Your task to perform on an android device: What's the weather today? Image 0: 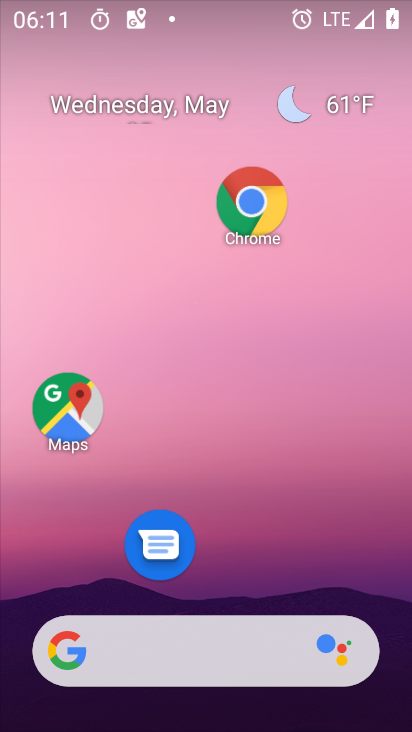
Step 0: press home button
Your task to perform on an android device: What's the weather today? Image 1: 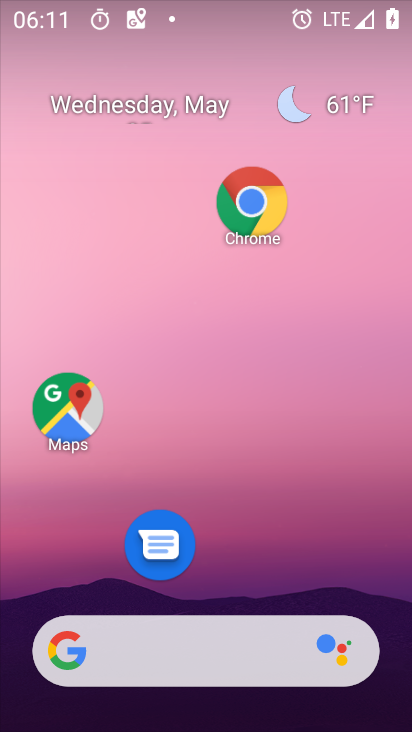
Step 1: click (239, 195)
Your task to perform on an android device: What's the weather today? Image 2: 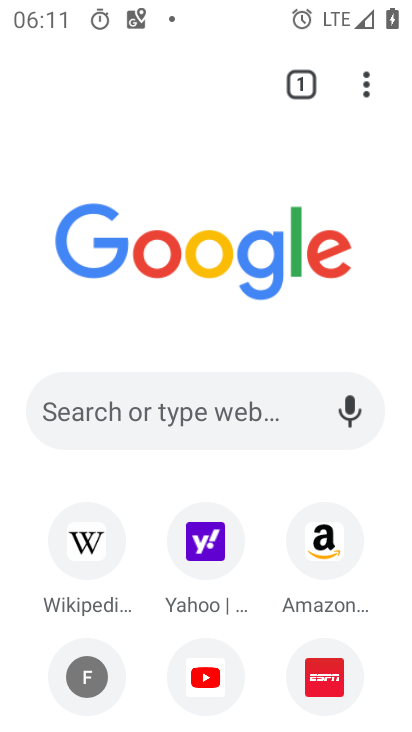
Step 2: click (204, 408)
Your task to perform on an android device: What's the weather today? Image 3: 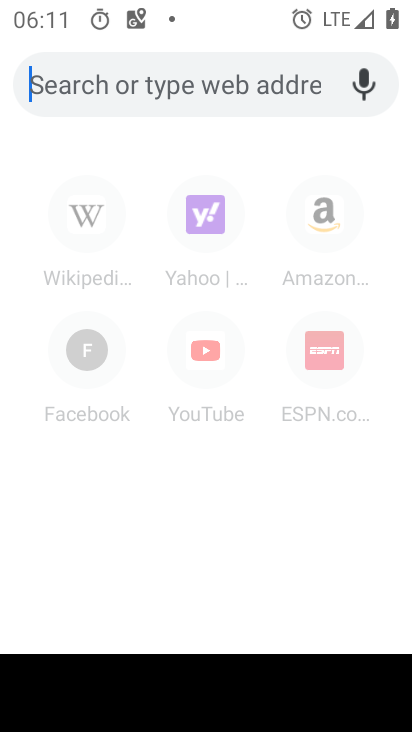
Step 3: click (223, 80)
Your task to perform on an android device: What's the weather today? Image 4: 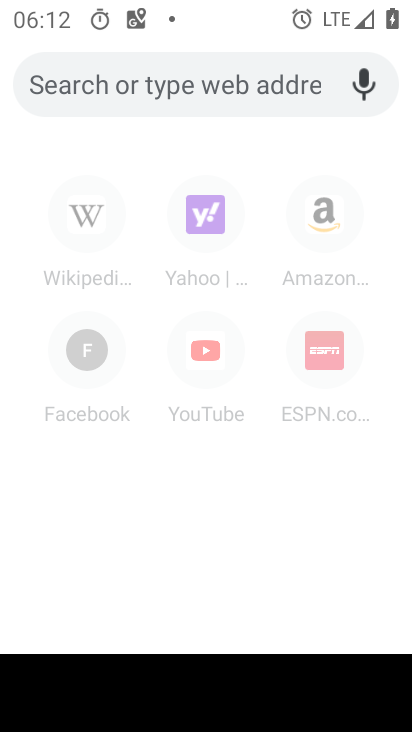
Step 4: type "whats the weather today?"
Your task to perform on an android device: What's the weather today? Image 5: 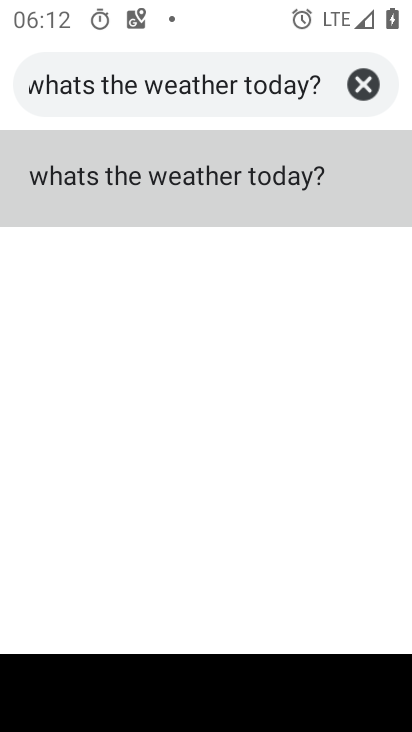
Step 5: click (215, 171)
Your task to perform on an android device: What's the weather today? Image 6: 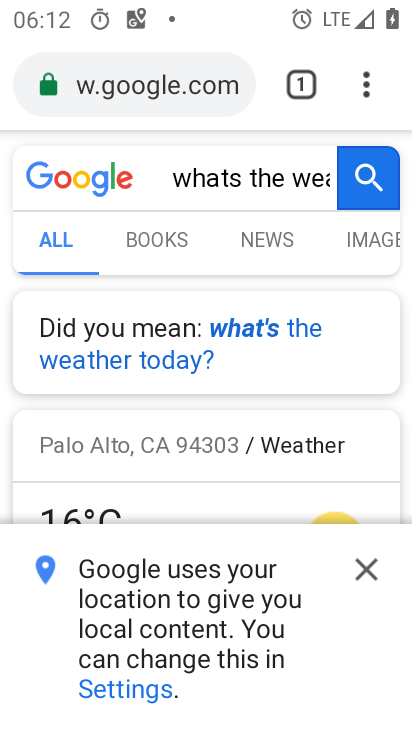
Step 6: click (366, 566)
Your task to perform on an android device: What's the weather today? Image 7: 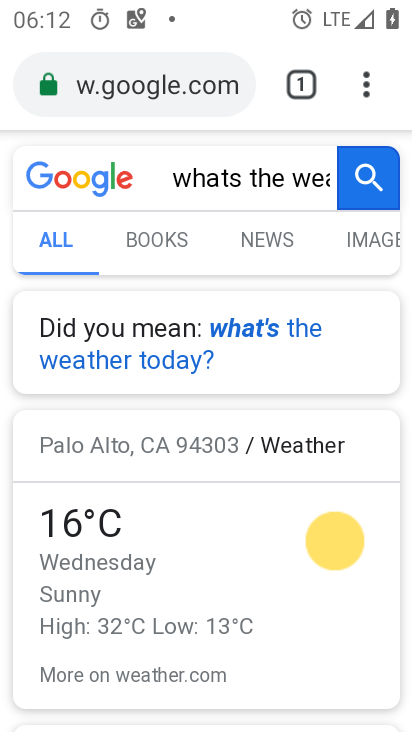
Step 7: task complete